Your task to perform on an android device: check google app version Image 0: 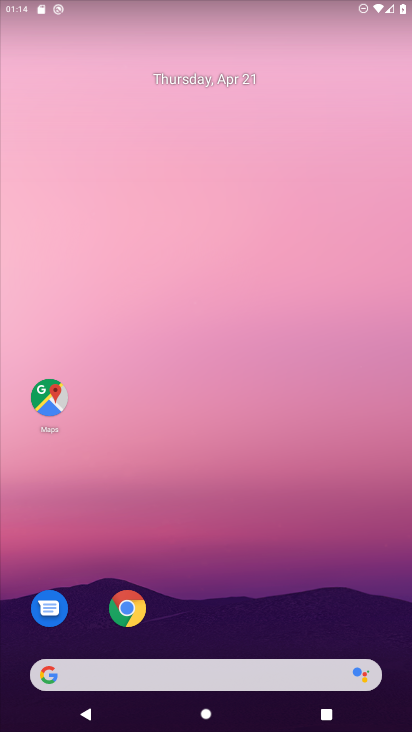
Step 0: drag from (222, 626) to (289, 260)
Your task to perform on an android device: check google app version Image 1: 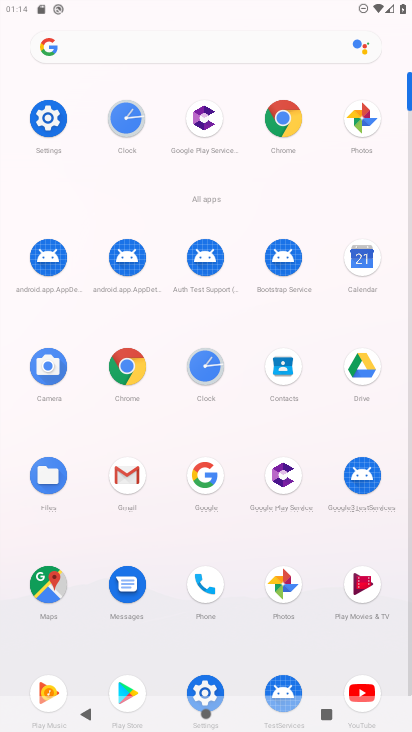
Step 1: click (196, 468)
Your task to perform on an android device: check google app version Image 2: 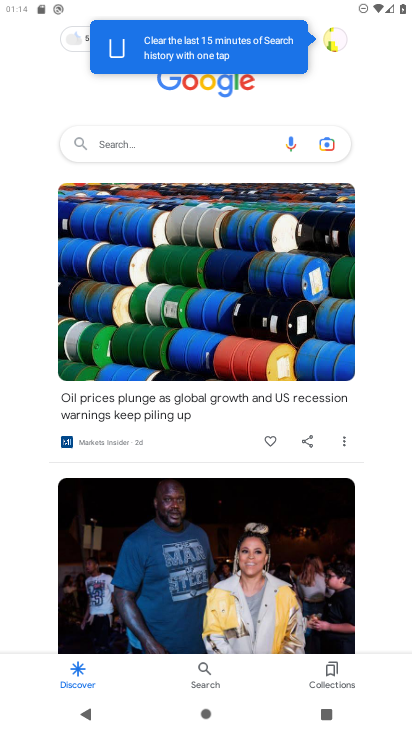
Step 2: click (339, 36)
Your task to perform on an android device: check google app version Image 3: 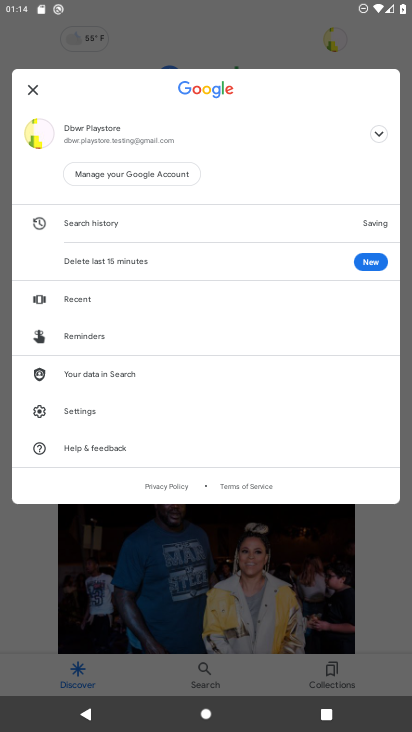
Step 3: click (93, 409)
Your task to perform on an android device: check google app version Image 4: 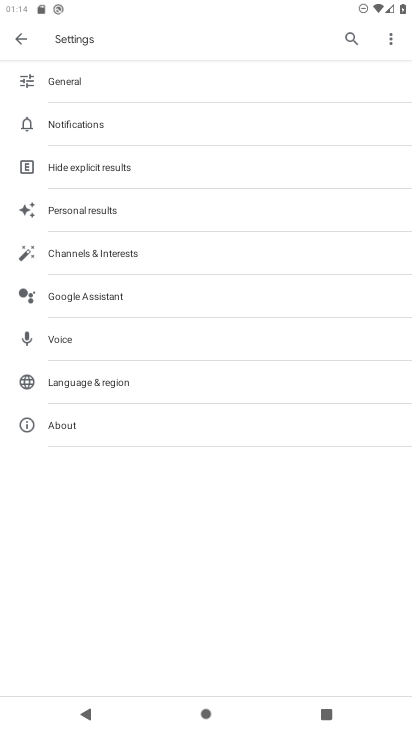
Step 4: click (74, 421)
Your task to perform on an android device: check google app version Image 5: 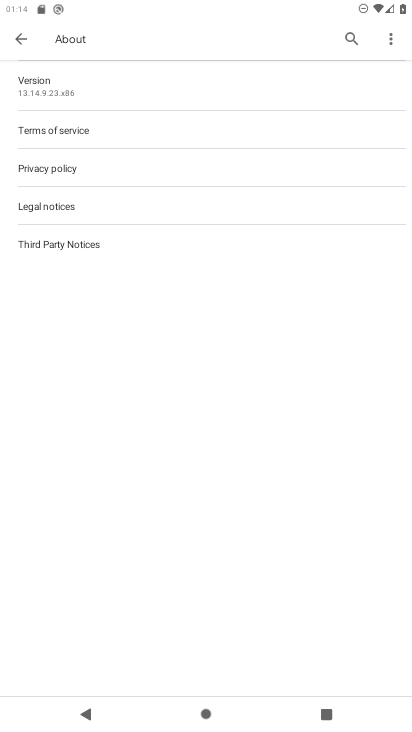
Step 5: click (99, 88)
Your task to perform on an android device: check google app version Image 6: 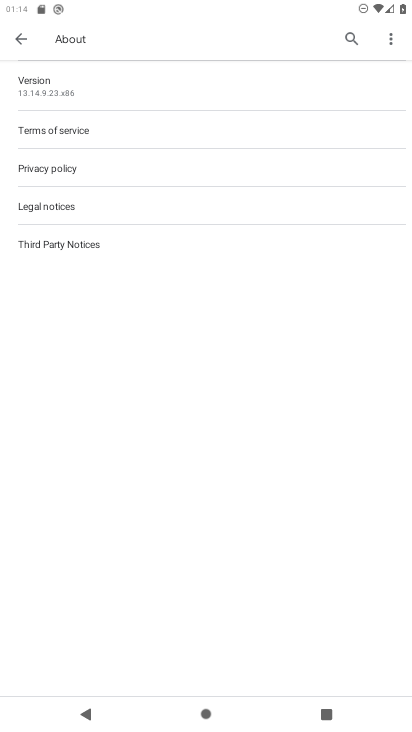
Step 6: click (99, 88)
Your task to perform on an android device: check google app version Image 7: 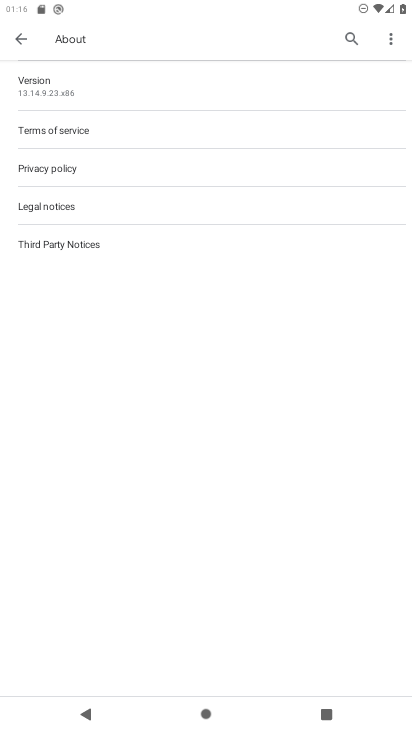
Step 7: task complete